Your task to perform on an android device: turn on the 24-hour format for clock Image 0: 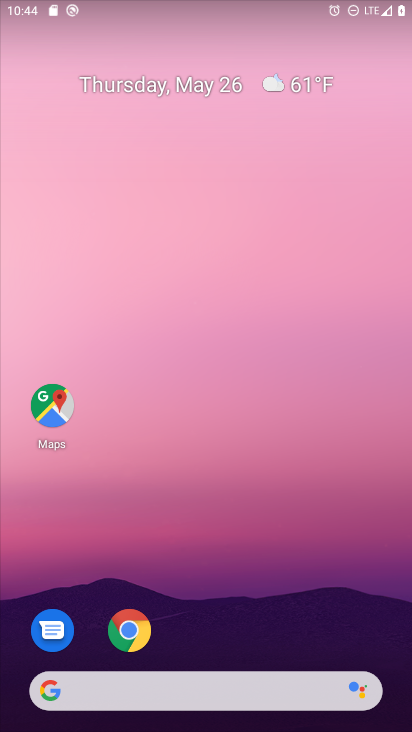
Step 0: drag from (228, 669) to (143, 10)
Your task to perform on an android device: turn on the 24-hour format for clock Image 1: 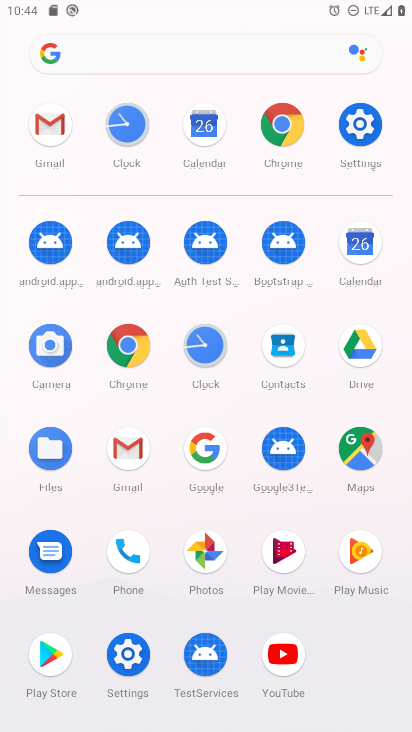
Step 1: click (209, 350)
Your task to perform on an android device: turn on the 24-hour format for clock Image 2: 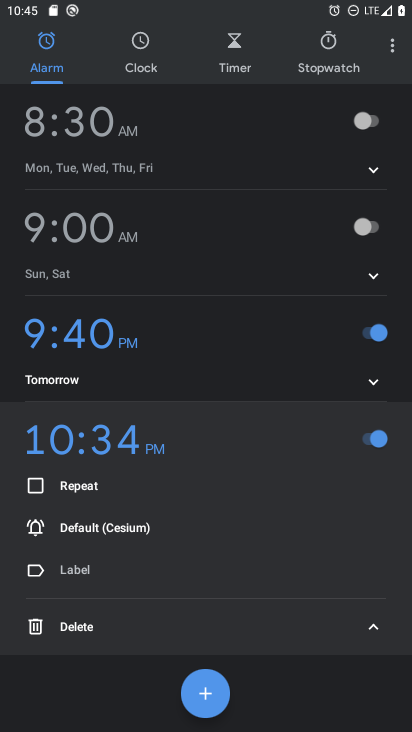
Step 2: click (387, 48)
Your task to perform on an android device: turn on the 24-hour format for clock Image 3: 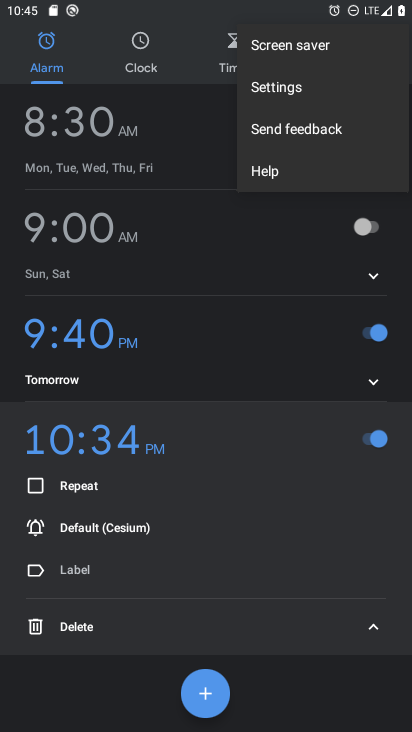
Step 3: click (288, 98)
Your task to perform on an android device: turn on the 24-hour format for clock Image 4: 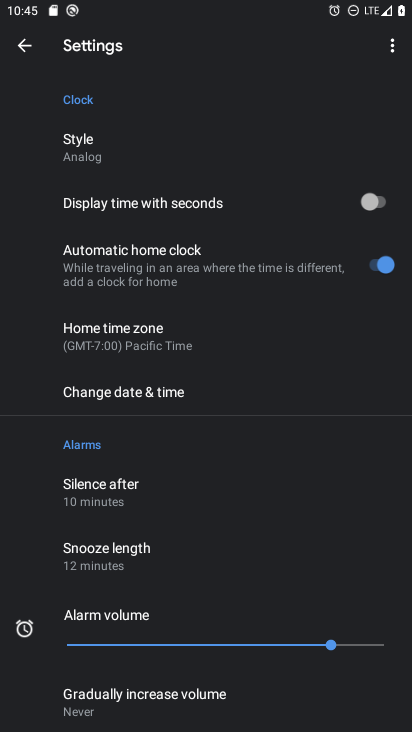
Step 4: click (105, 403)
Your task to perform on an android device: turn on the 24-hour format for clock Image 5: 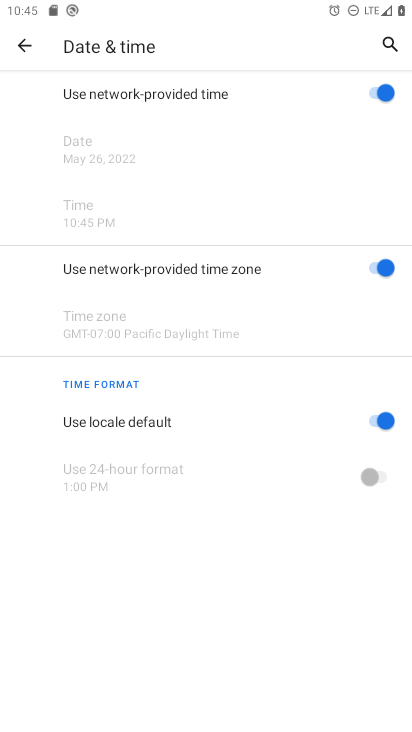
Step 5: click (387, 428)
Your task to perform on an android device: turn on the 24-hour format for clock Image 6: 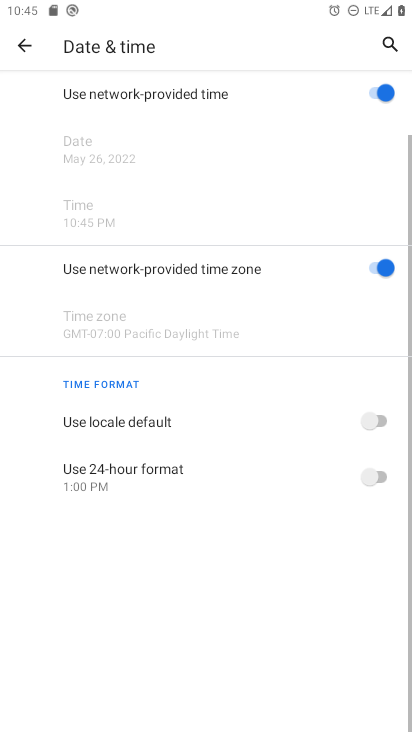
Step 6: click (372, 478)
Your task to perform on an android device: turn on the 24-hour format for clock Image 7: 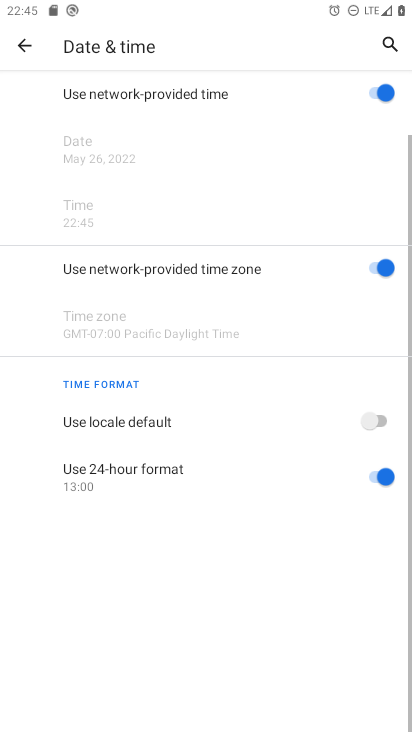
Step 7: task complete